Your task to perform on an android device: Toggle the flashlight Image 0: 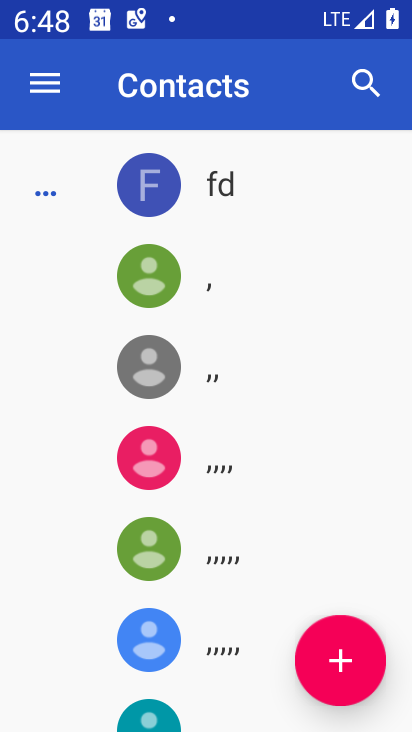
Step 0: press home button
Your task to perform on an android device: Toggle the flashlight Image 1: 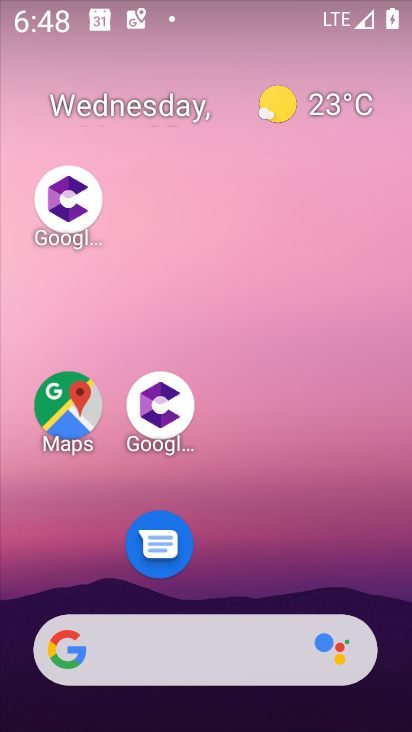
Step 1: drag from (254, 486) to (165, 56)
Your task to perform on an android device: Toggle the flashlight Image 2: 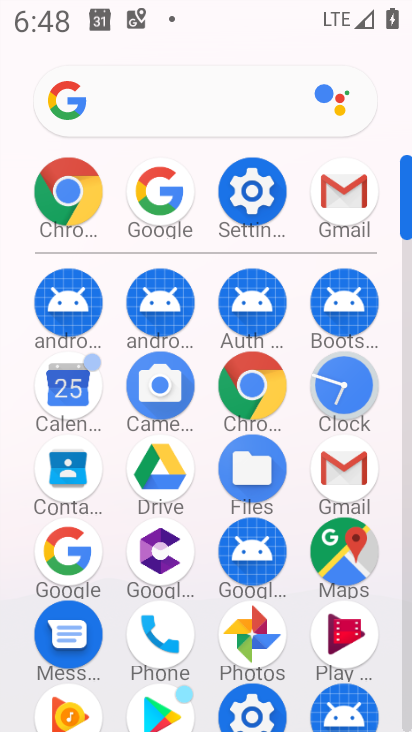
Step 2: click (255, 195)
Your task to perform on an android device: Toggle the flashlight Image 3: 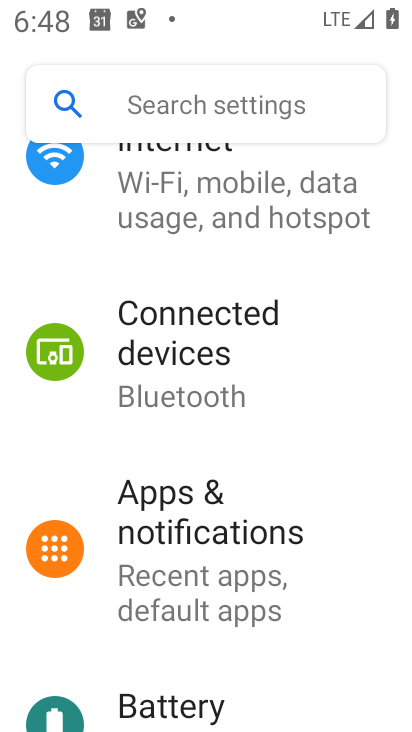
Step 3: click (200, 180)
Your task to perform on an android device: Toggle the flashlight Image 4: 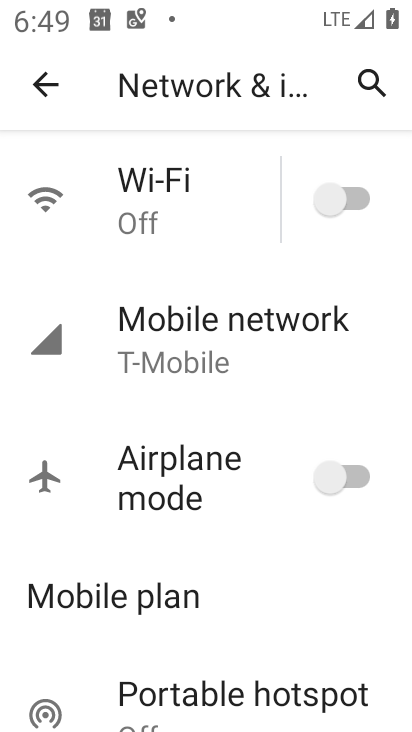
Step 4: task complete